Your task to perform on an android device: set default search engine in the chrome app Image 0: 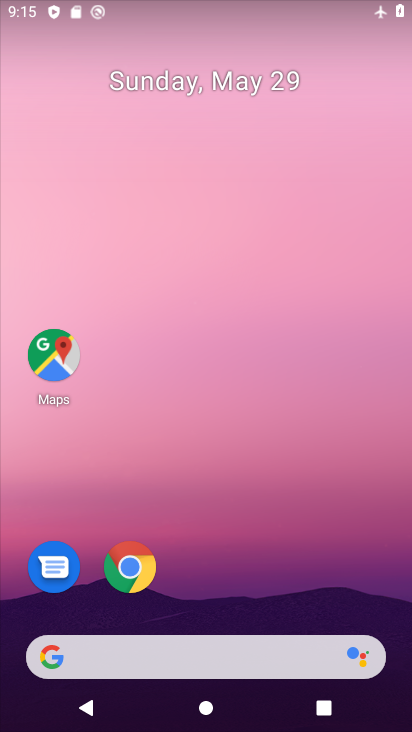
Step 0: click (132, 566)
Your task to perform on an android device: set default search engine in the chrome app Image 1: 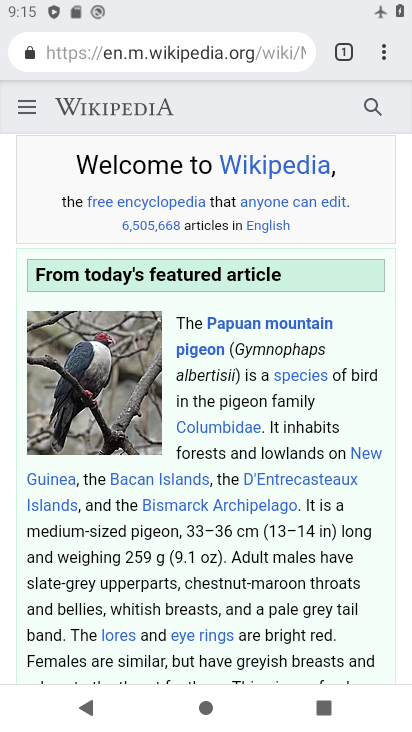
Step 1: click (381, 53)
Your task to perform on an android device: set default search engine in the chrome app Image 2: 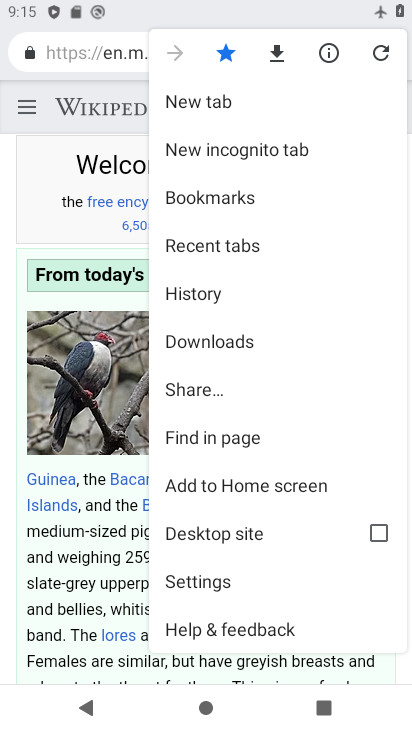
Step 2: click (181, 580)
Your task to perform on an android device: set default search engine in the chrome app Image 3: 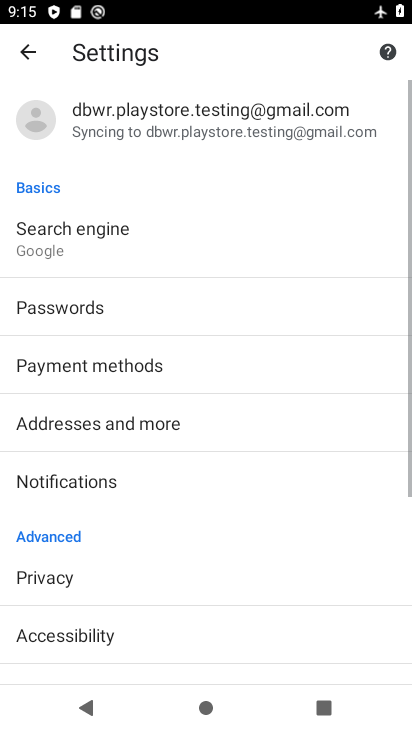
Step 3: drag from (218, 614) to (238, 144)
Your task to perform on an android device: set default search engine in the chrome app Image 4: 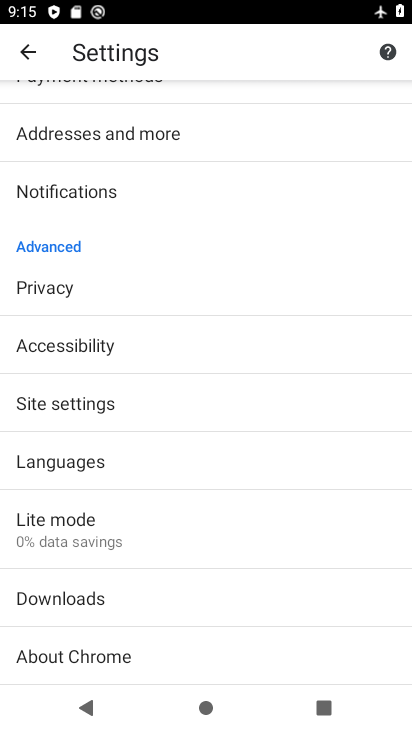
Step 4: drag from (224, 188) to (202, 529)
Your task to perform on an android device: set default search engine in the chrome app Image 5: 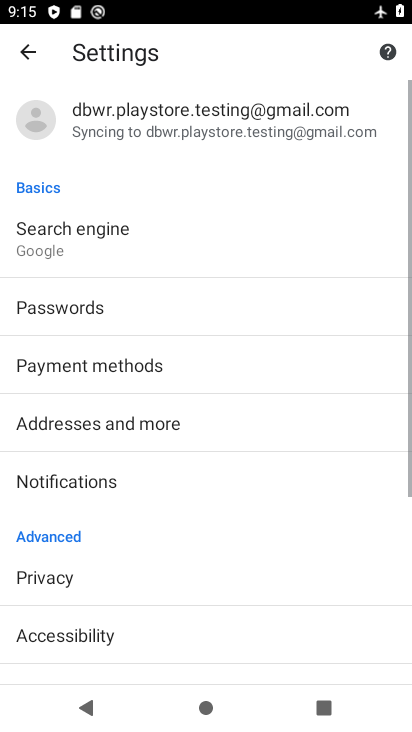
Step 5: click (55, 230)
Your task to perform on an android device: set default search engine in the chrome app Image 6: 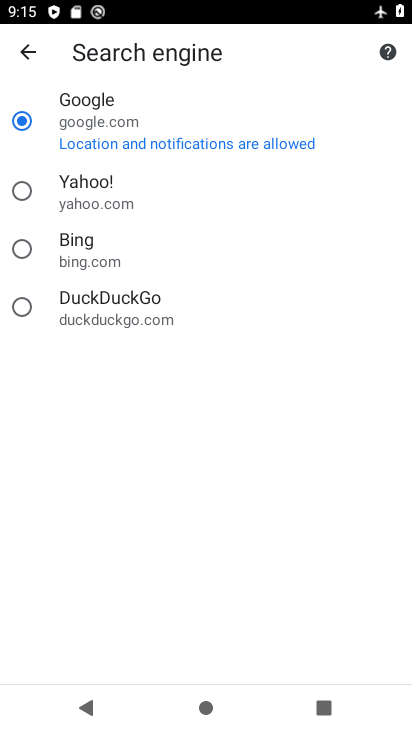
Step 6: click (18, 190)
Your task to perform on an android device: set default search engine in the chrome app Image 7: 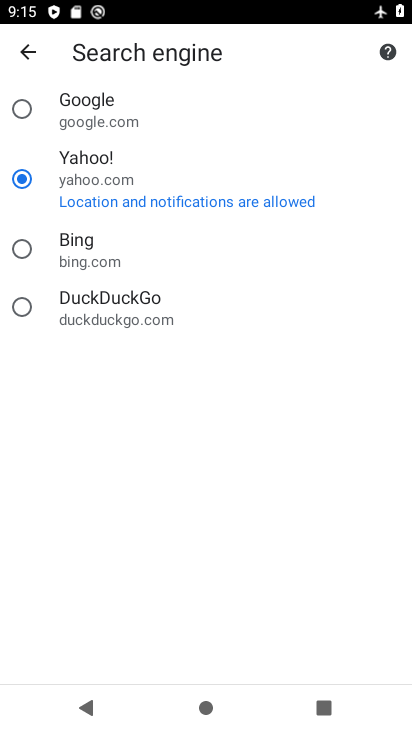
Step 7: task complete